Your task to perform on an android device: Search for Mexican restaurants on Maps Image 0: 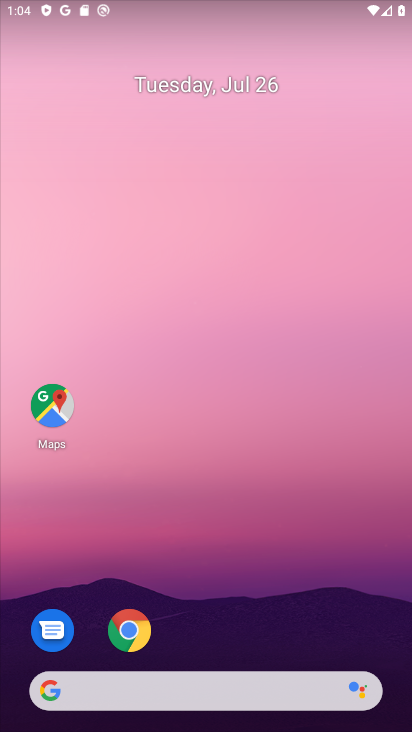
Step 0: drag from (225, 596) to (327, 67)
Your task to perform on an android device: Search for Mexican restaurants on Maps Image 1: 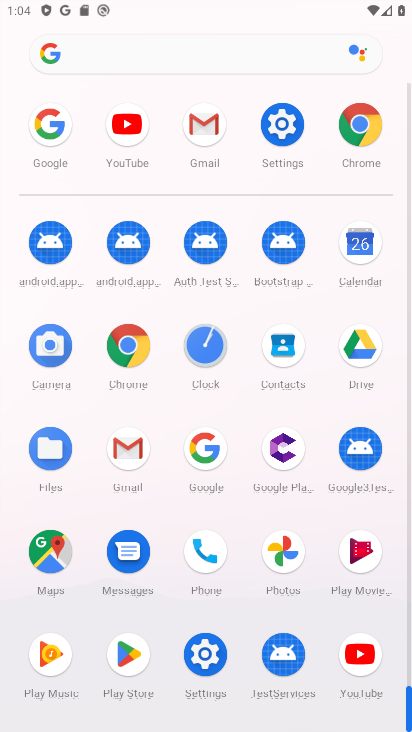
Step 1: click (45, 560)
Your task to perform on an android device: Search for Mexican restaurants on Maps Image 2: 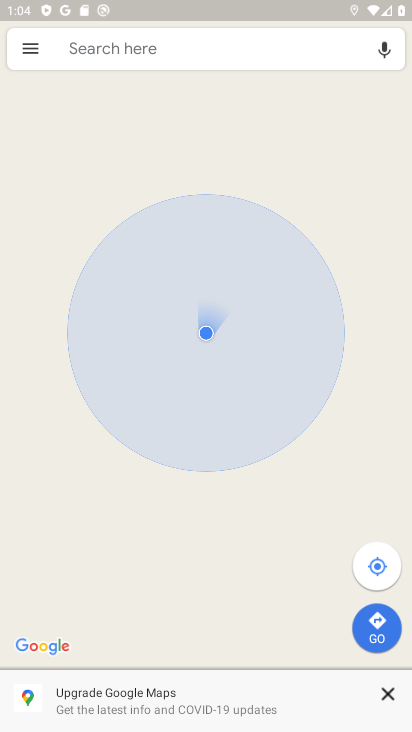
Step 2: click (106, 40)
Your task to perform on an android device: Search for Mexican restaurants on Maps Image 3: 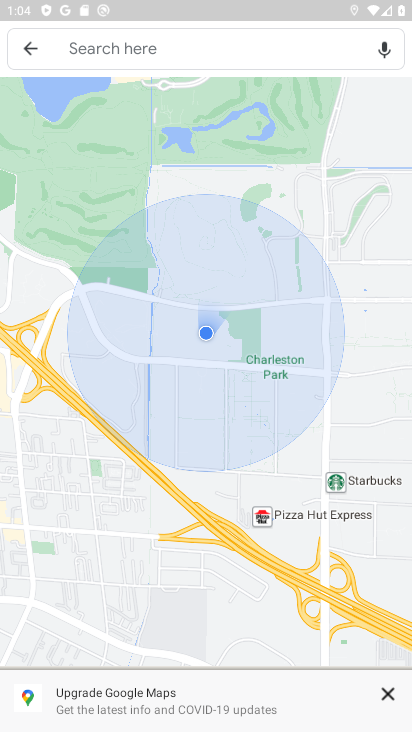
Step 3: click (228, 50)
Your task to perform on an android device: Search for Mexican restaurants on Maps Image 4: 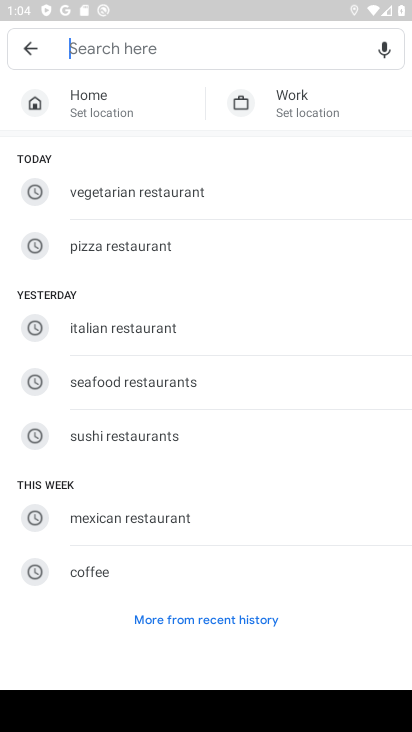
Step 4: click (91, 522)
Your task to perform on an android device: Search for Mexican restaurants on Maps Image 5: 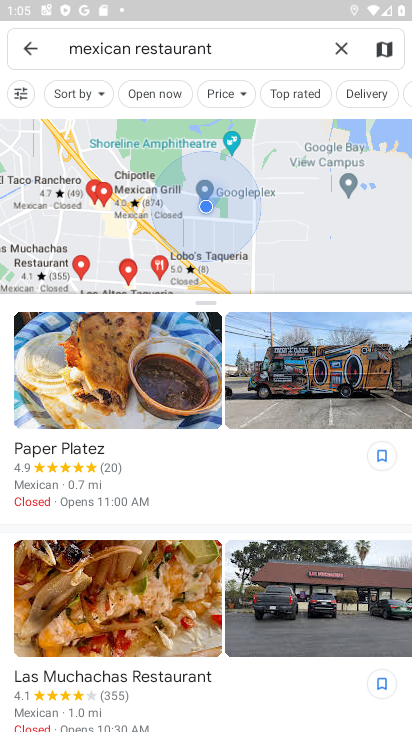
Step 5: task complete